Your task to perform on an android device: open device folders in google photos Image 0: 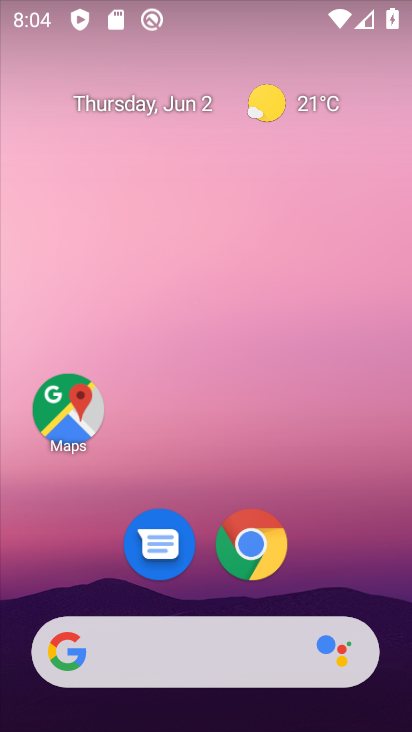
Step 0: drag from (387, 579) to (279, 173)
Your task to perform on an android device: open device folders in google photos Image 1: 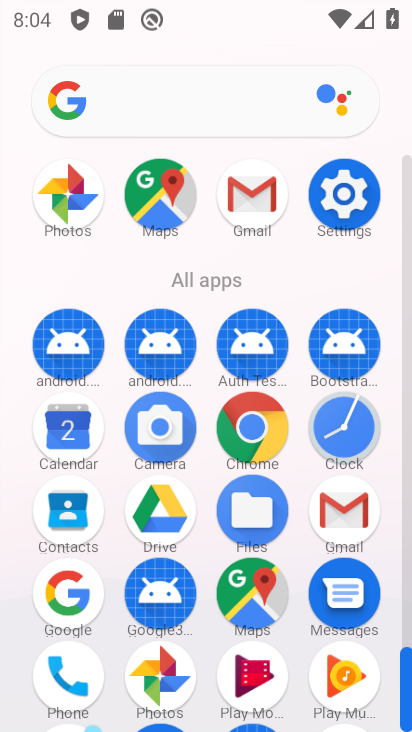
Step 1: click (85, 208)
Your task to perform on an android device: open device folders in google photos Image 2: 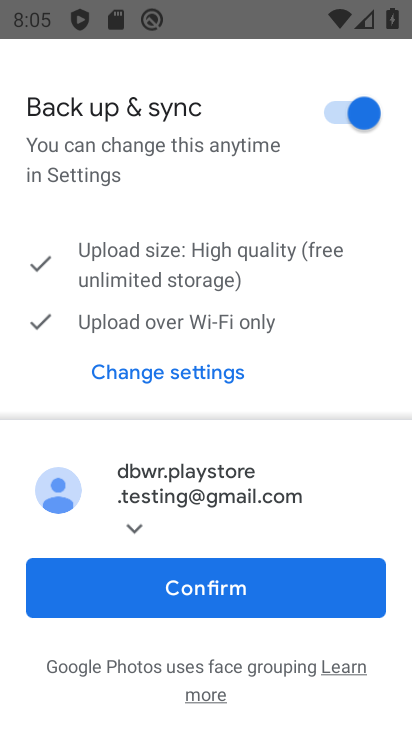
Step 2: click (233, 599)
Your task to perform on an android device: open device folders in google photos Image 3: 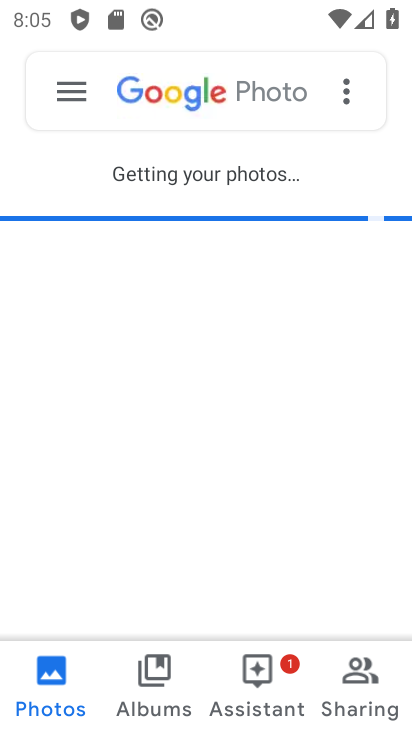
Step 3: click (67, 114)
Your task to perform on an android device: open device folders in google photos Image 4: 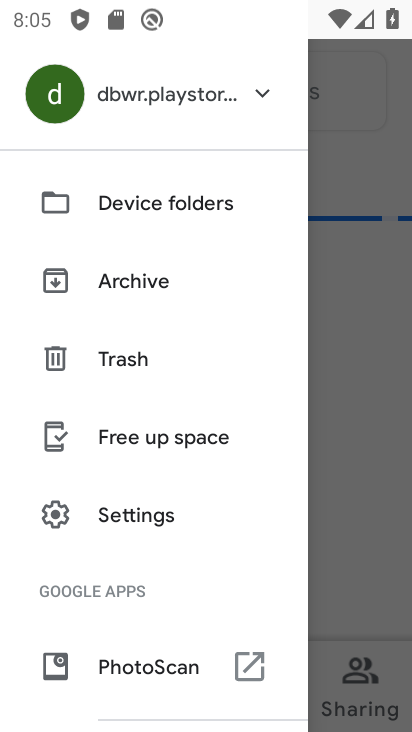
Step 4: click (146, 195)
Your task to perform on an android device: open device folders in google photos Image 5: 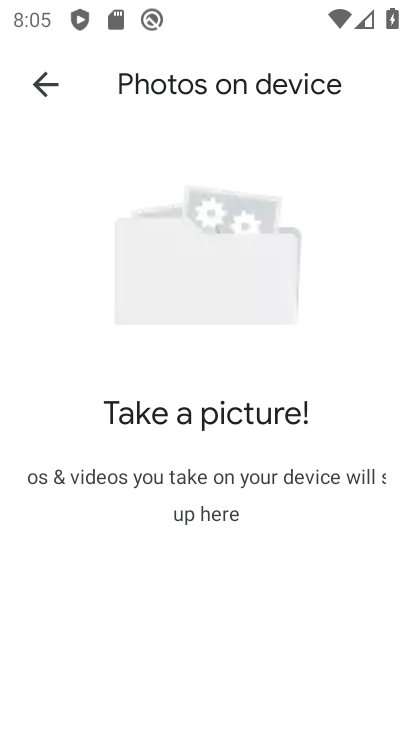
Step 5: task complete